Your task to perform on an android device: Search for a new desk on IKEA Image 0: 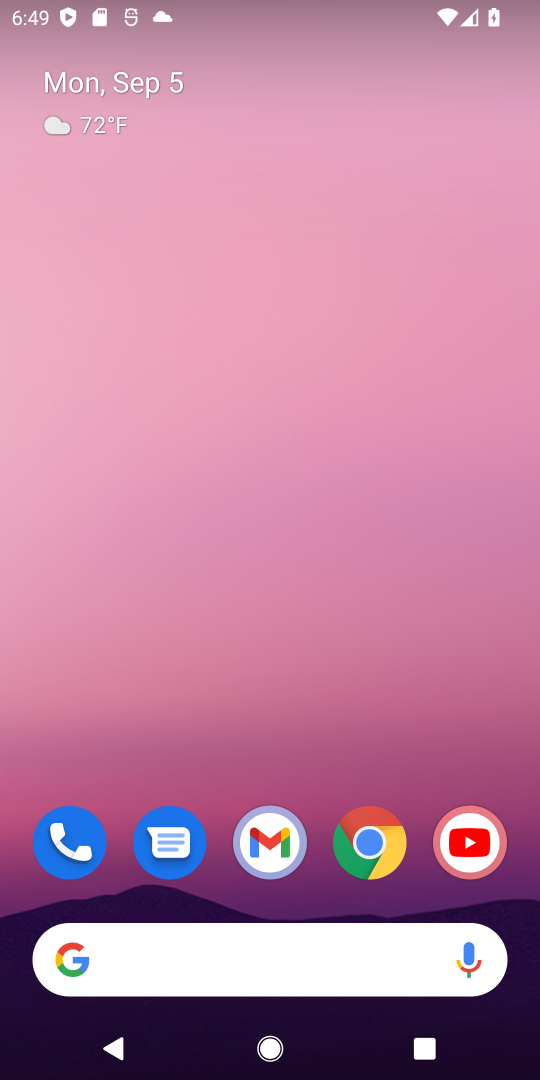
Step 0: click (366, 847)
Your task to perform on an android device: Search for a new desk on IKEA Image 1: 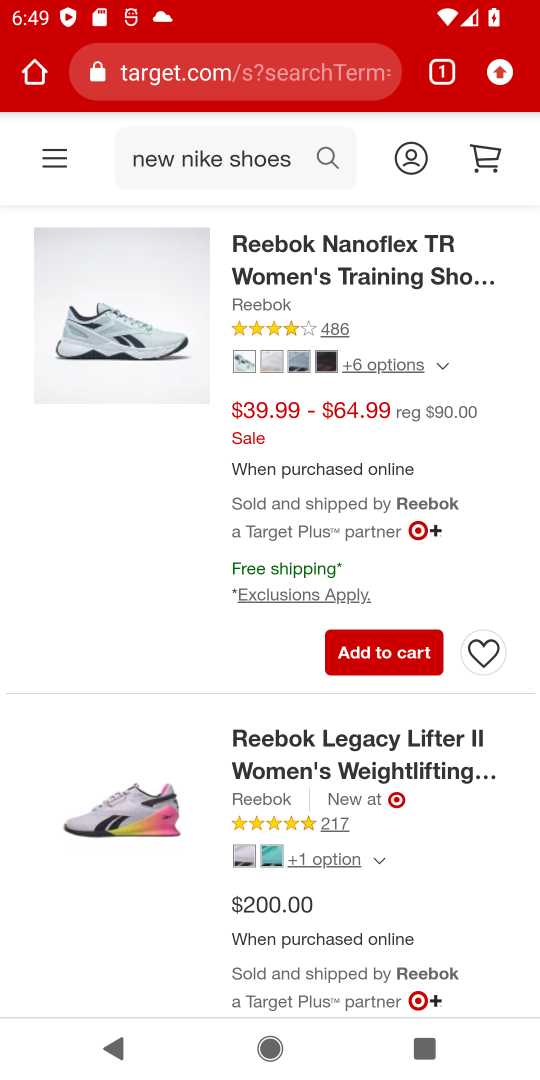
Step 1: press back button
Your task to perform on an android device: Search for a new desk on IKEA Image 2: 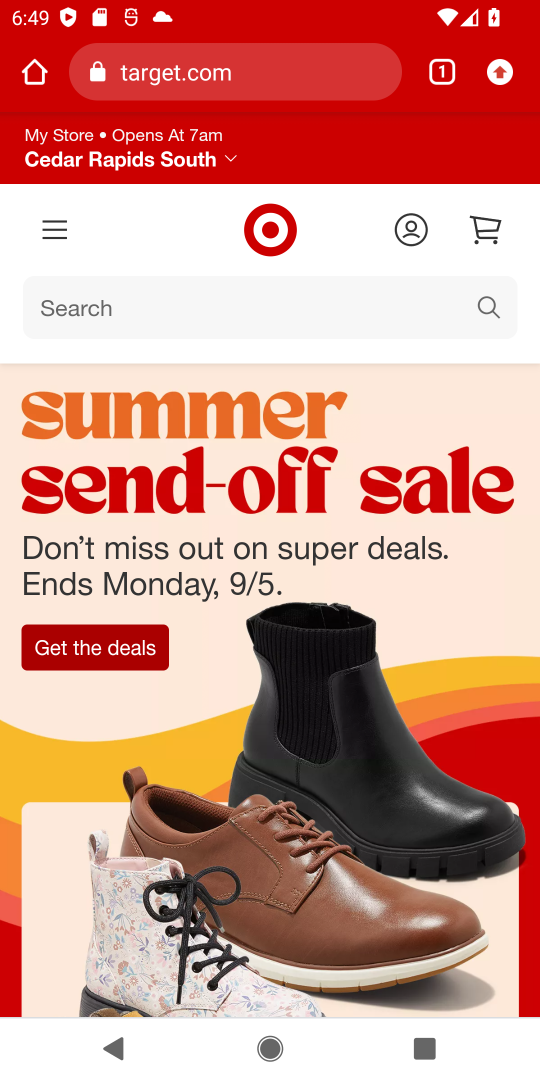
Step 2: press back button
Your task to perform on an android device: Search for a new desk on IKEA Image 3: 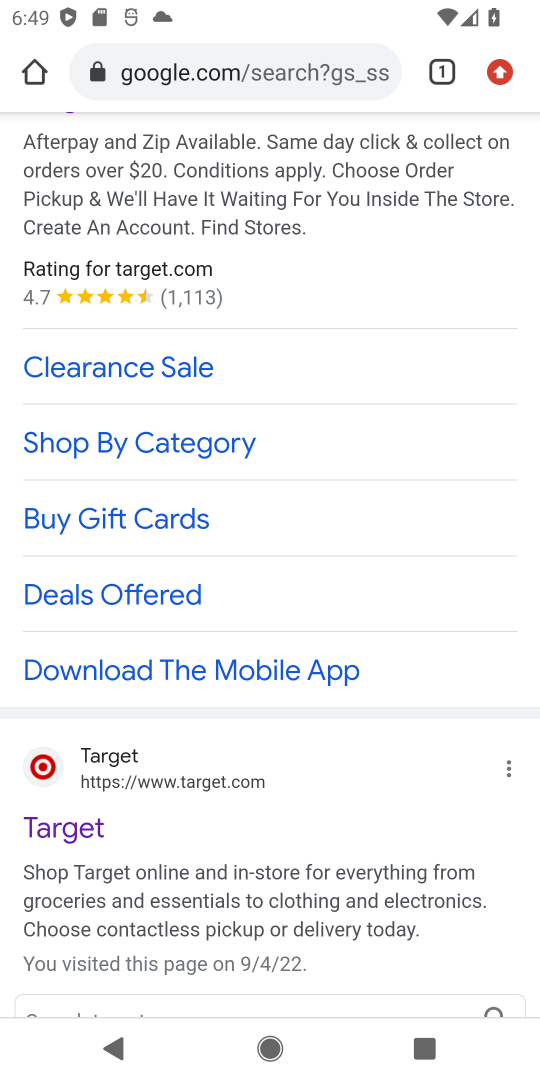
Step 3: click (356, 83)
Your task to perform on an android device: Search for a new desk on IKEA Image 4: 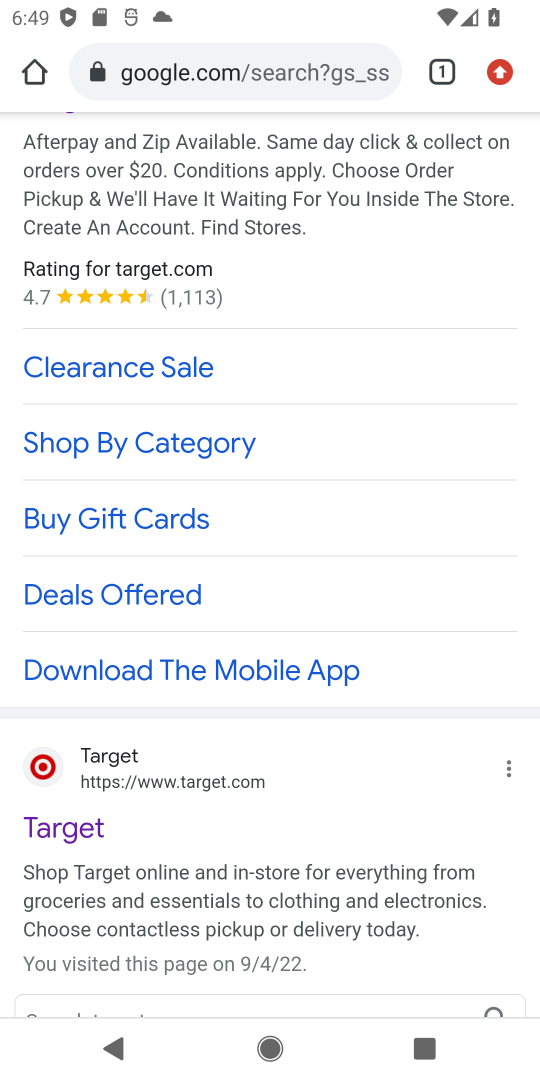
Step 4: click (356, 83)
Your task to perform on an android device: Search for a new desk on IKEA Image 5: 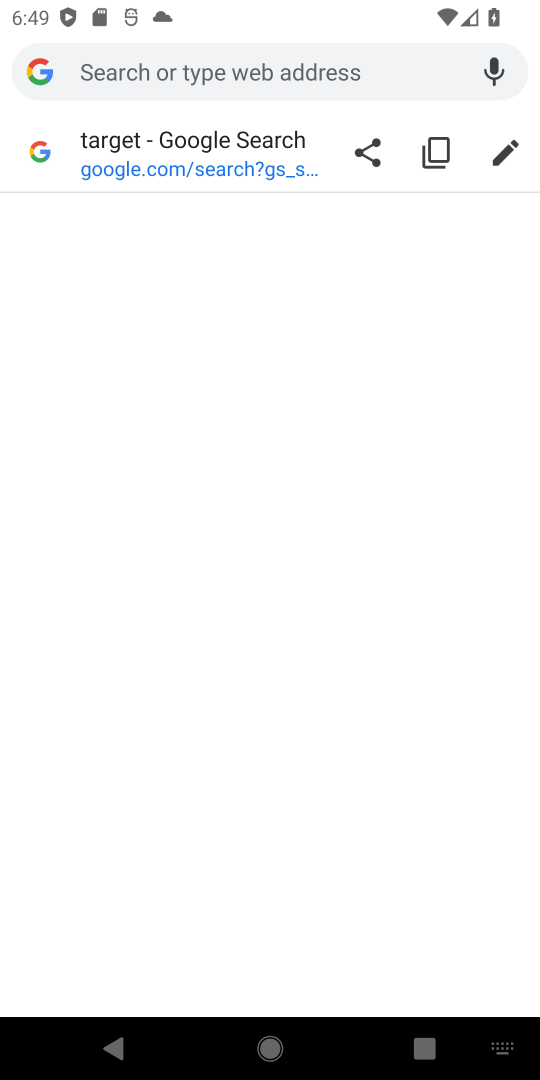
Step 5: type "Ikea"
Your task to perform on an android device: Search for a new desk on IKEA Image 6: 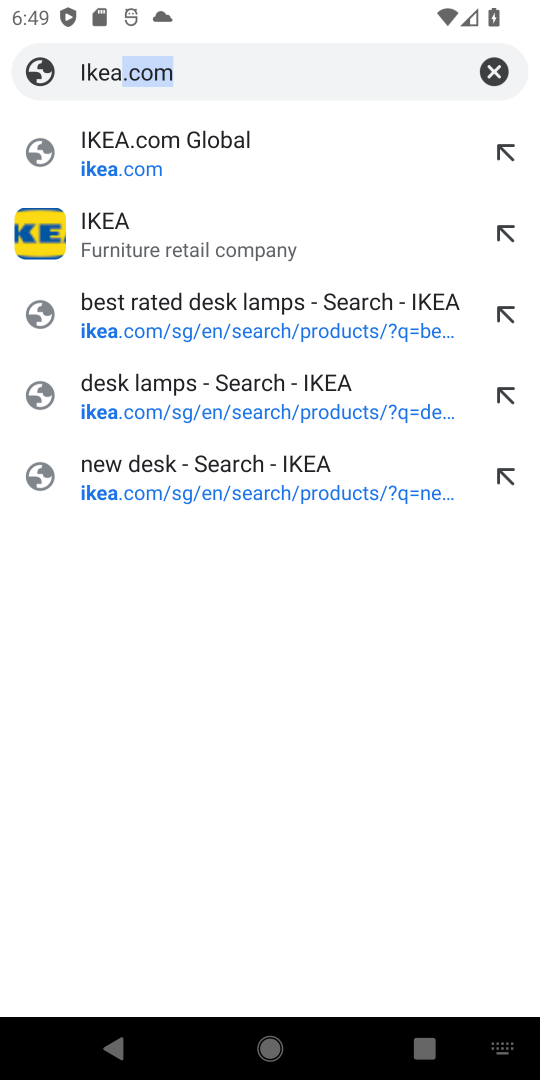
Step 6: click (137, 247)
Your task to perform on an android device: Search for a new desk on IKEA Image 7: 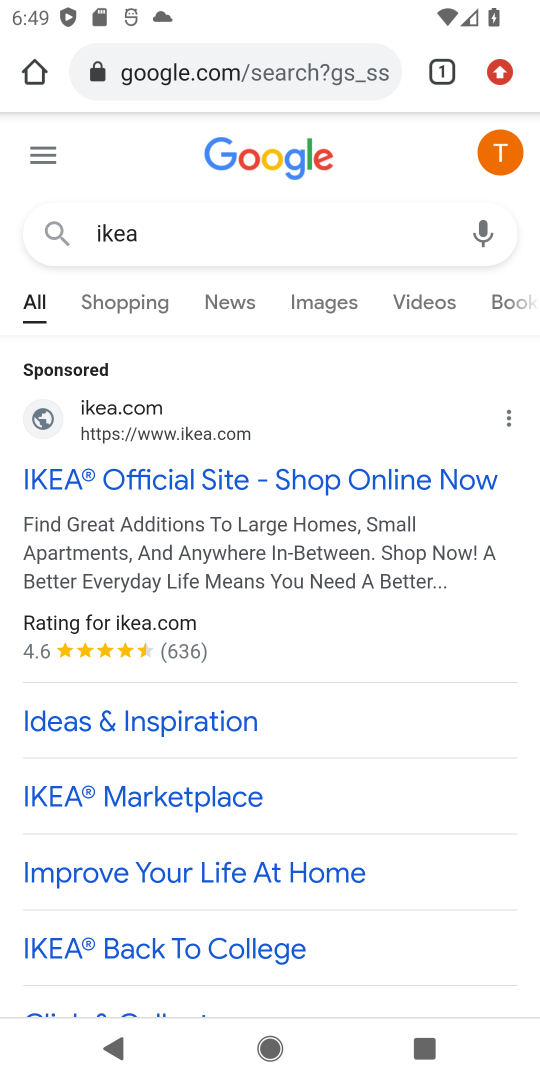
Step 7: drag from (306, 809) to (318, 385)
Your task to perform on an android device: Search for a new desk on IKEA Image 8: 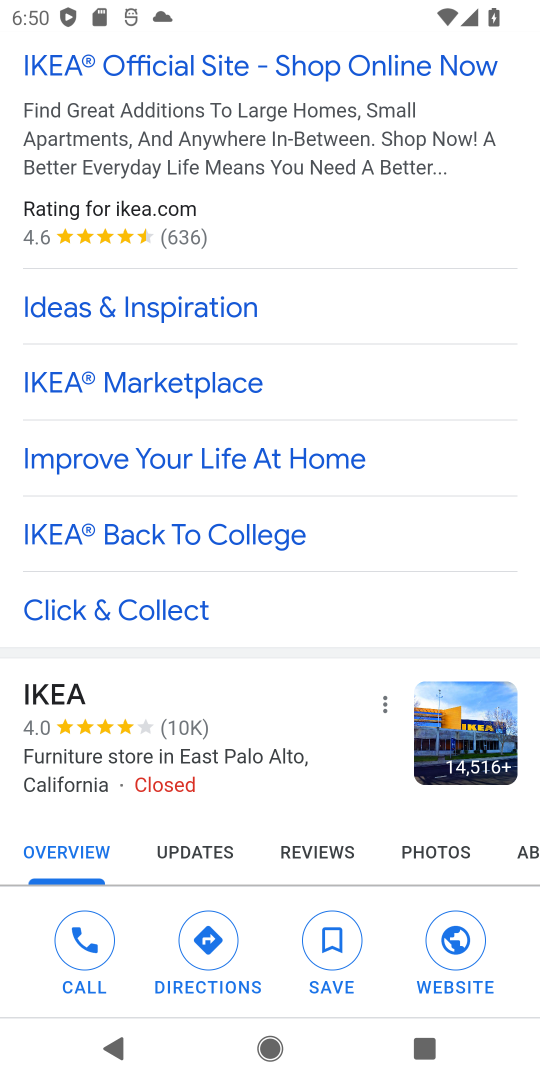
Step 8: drag from (292, 937) to (340, 412)
Your task to perform on an android device: Search for a new desk on IKEA Image 9: 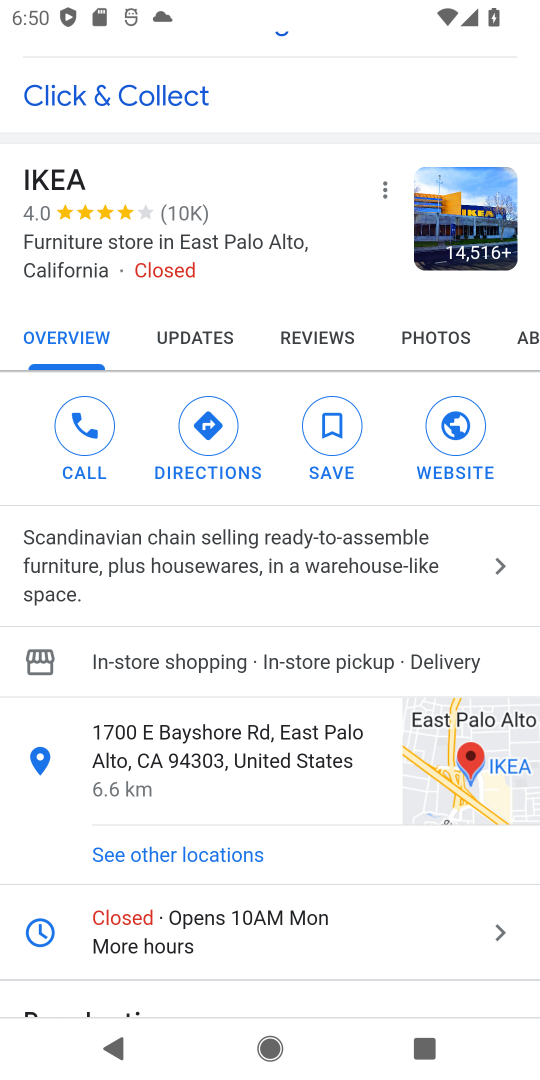
Step 9: drag from (264, 963) to (304, 564)
Your task to perform on an android device: Search for a new desk on IKEA Image 10: 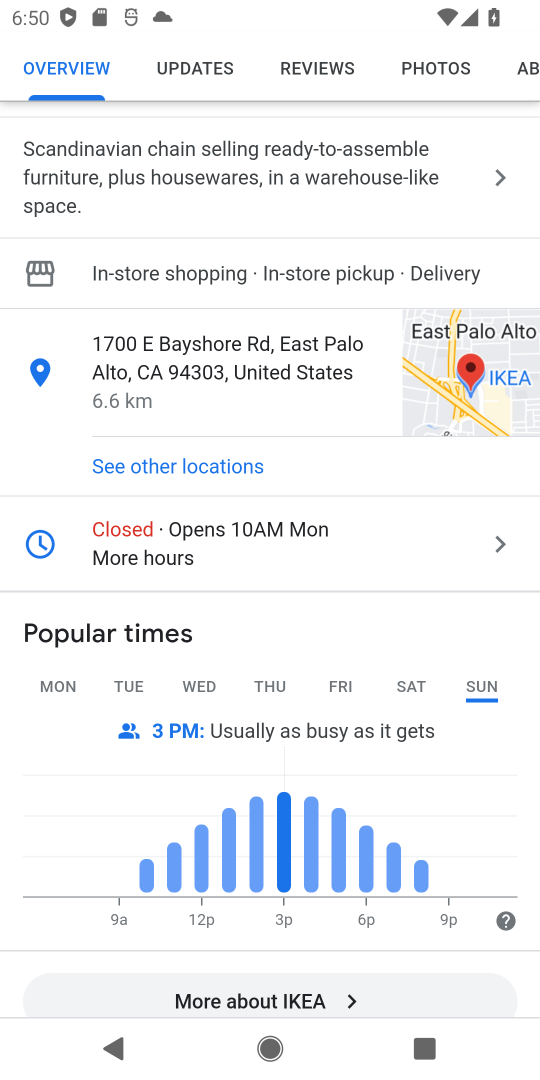
Step 10: drag from (261, 961) to (339, 559)
Your task to perform on an android device: Search for a new desk on IKEA Image 11: 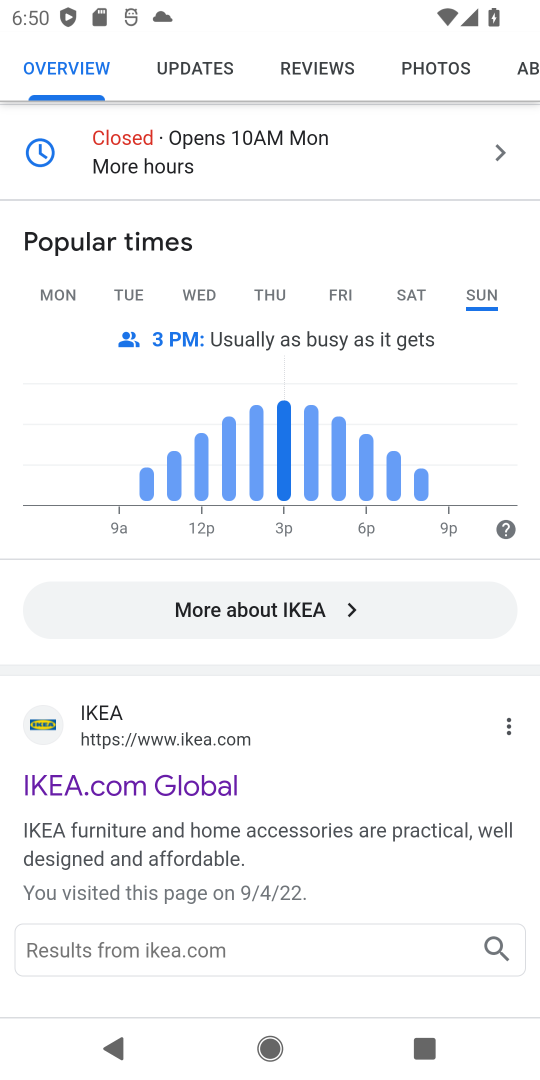
Step 11: click (222, 791)
Your task to perform on an android device: Search for a new desk on IKEA Image 12: 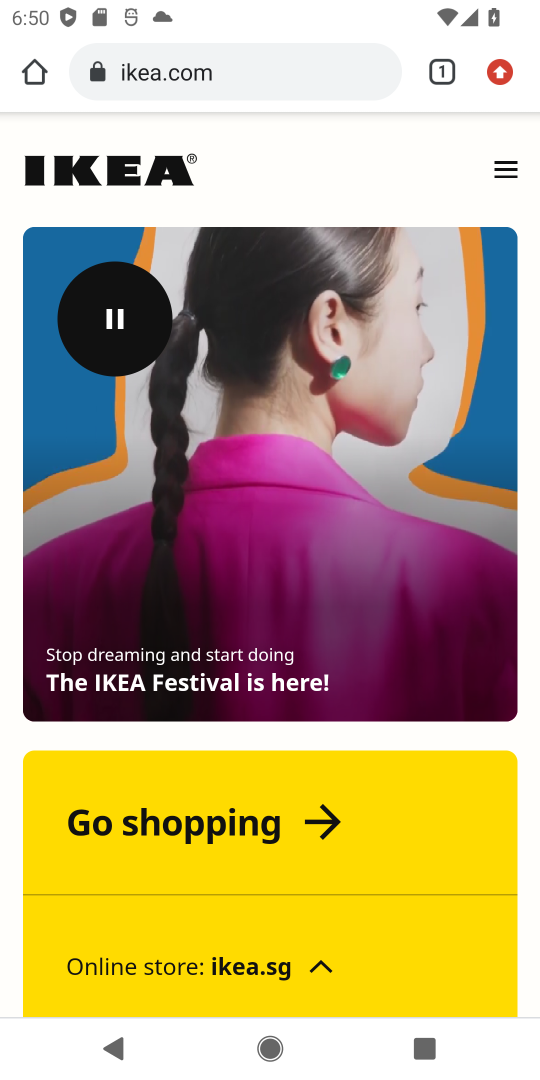
Step 12: click (229, 841)
Your task to perform on an android device: Search for a new desk on IKEA Image 13: 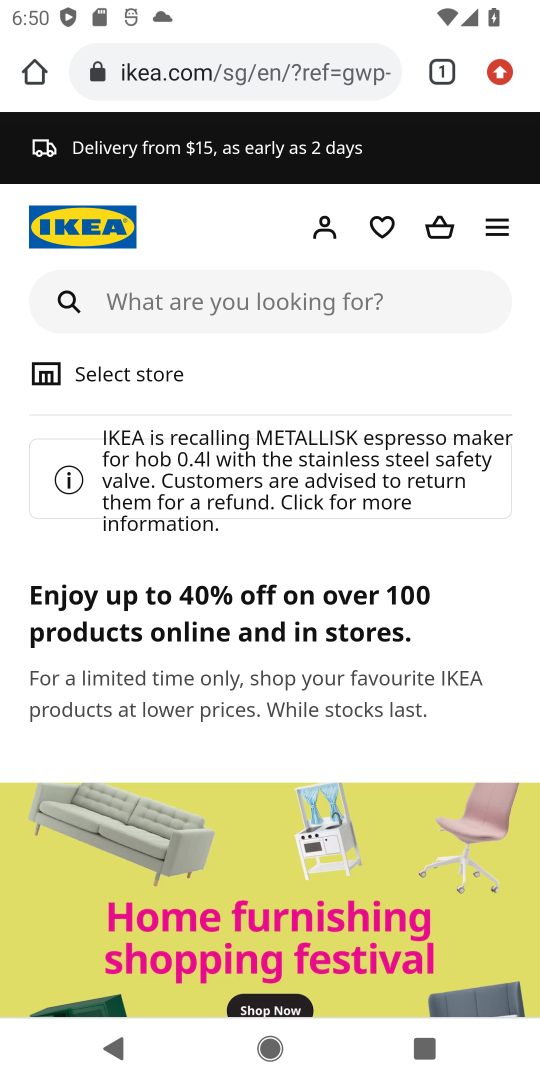
Step 13: click (335, 305)
Your task to perform on an android device: Search for a new desk on IKEA Image 14: 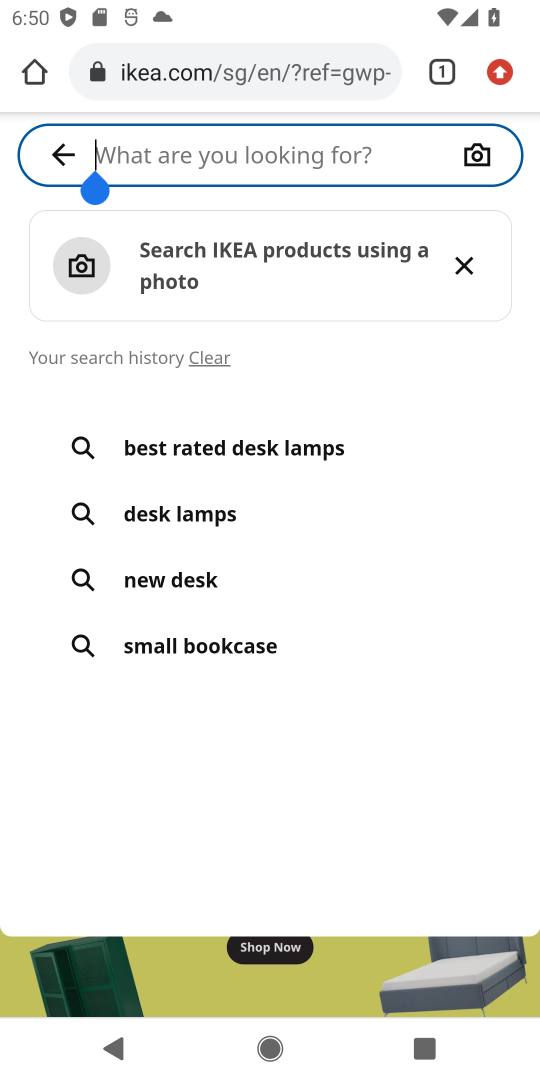
Step 14: type "new desk"
Your task to perform on an android device: Search for a new desk on IKEA Image 15: 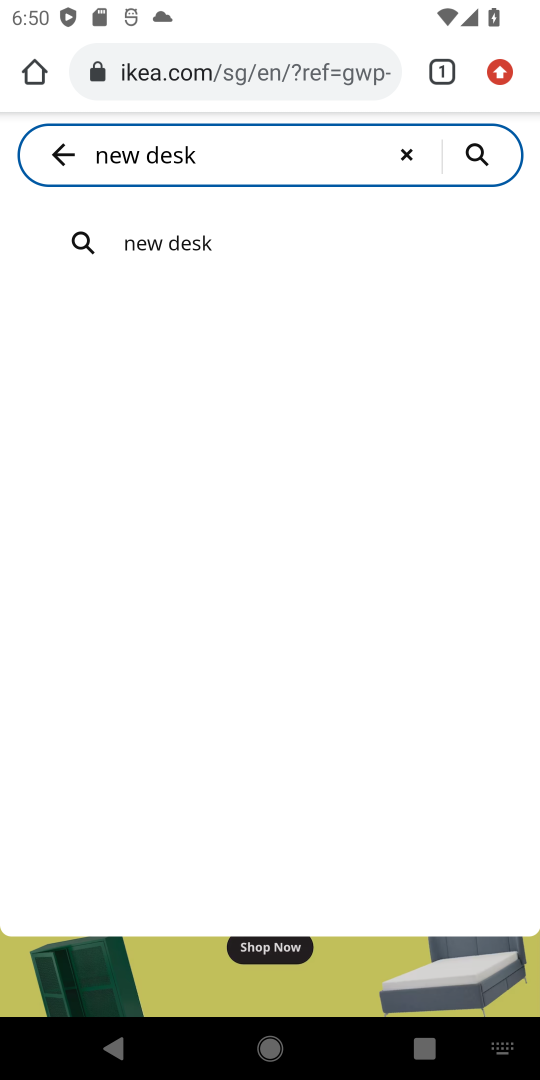
Step 15: click (479, 157)
Your task to perform on an android device: Search for a new desk on IKEA Image 16: 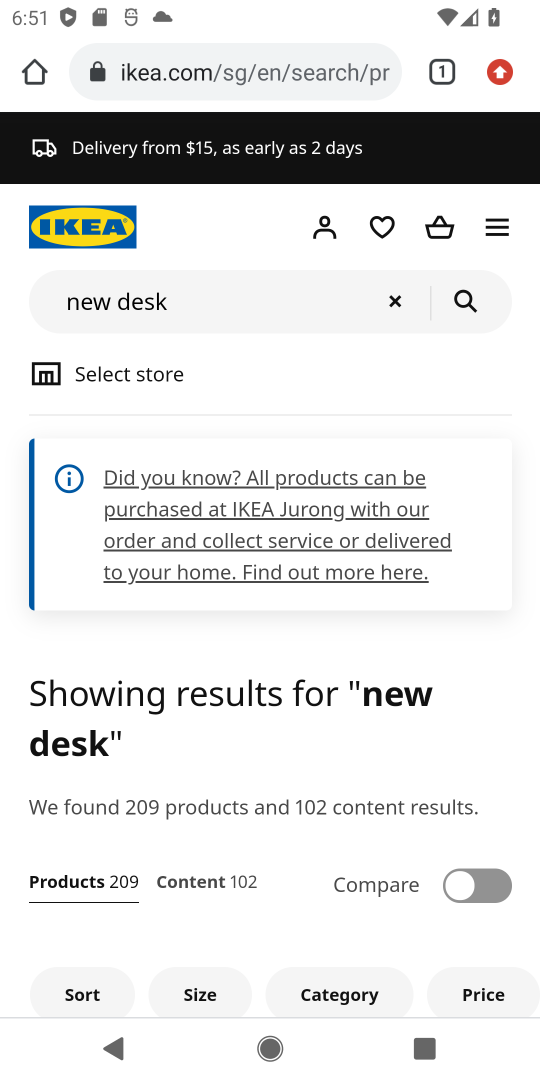
Step 16: task complete